Your task to perform on an android device: check the backup settings in the google photos Image 0: 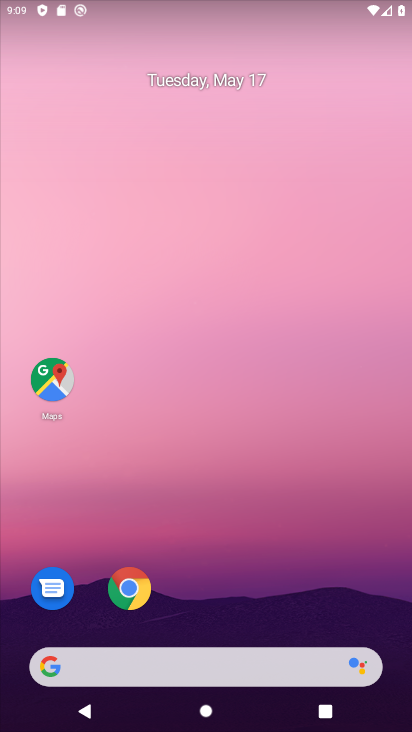
Step 0: drag from (220, 436) to (230, 231)
Your task to perform on an android device: check the backup settings in the google photos Image 1: 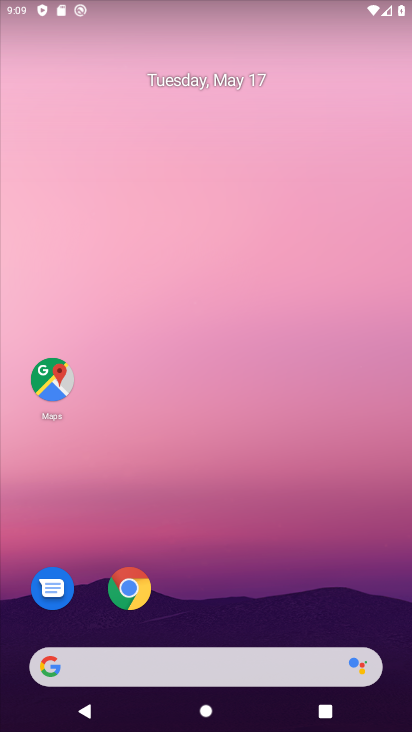
Step 1: drag from (180, 569) to (191, 302)
Your task to perform on an android device: check the backup settings in the google photos Image 2: 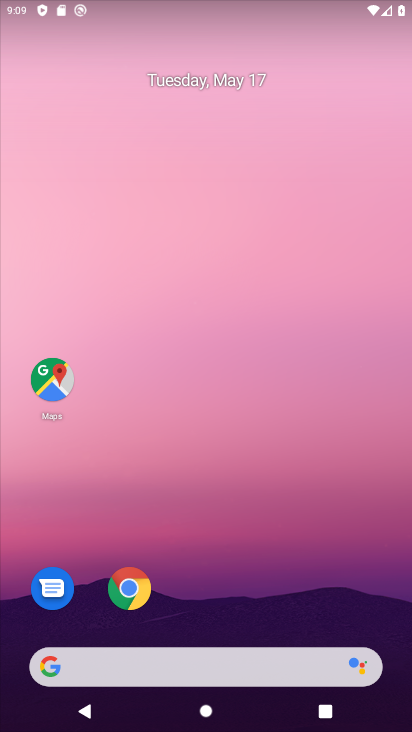
Step 2: drag from (164, 605) to (208, 232)
Your task to perform on an android device: check the backup settings in the google photos Image 3: 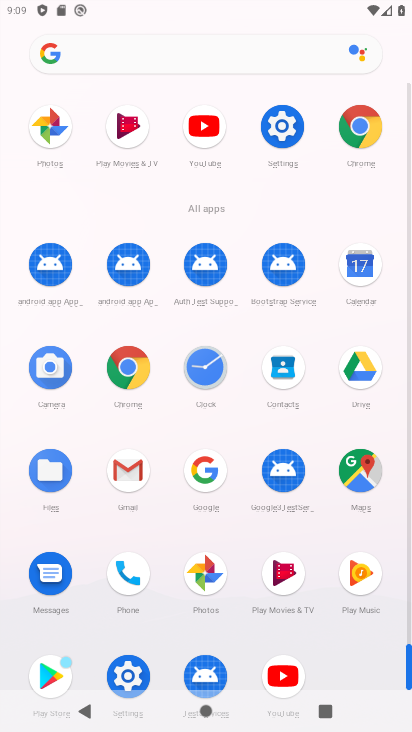
Step 3: click (210, 564)
Your task to perform on an android device: check the backup settings in the google photos Image 4: 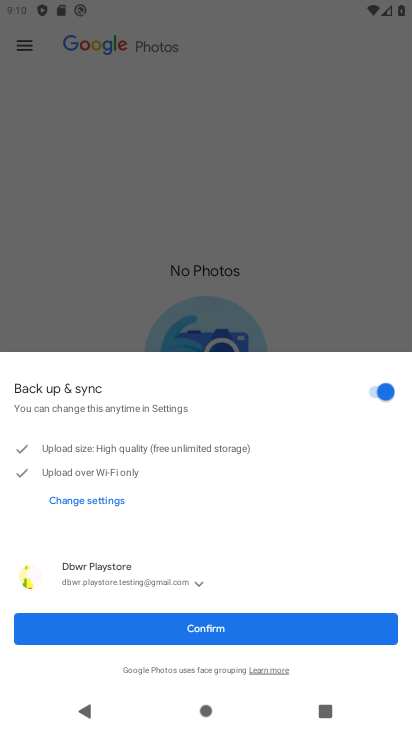
Step 4: click (266, 619)
Your task to perform on an android device: check the backup settings in the google photos Image 5: 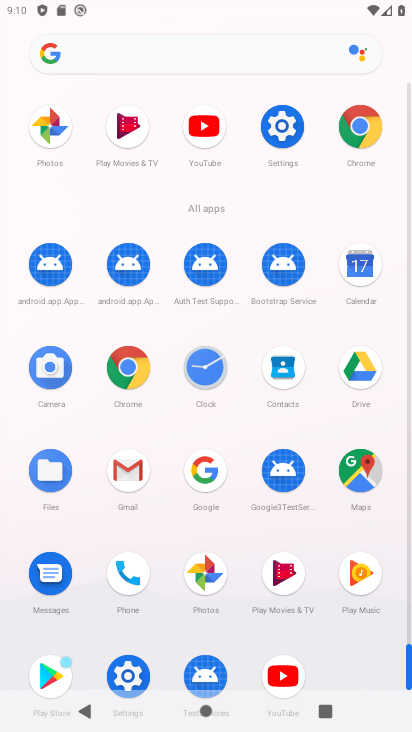
Step 5: click (204, 560)
Your task to perform on an android device: check the backup settings in the google photos Image 6: 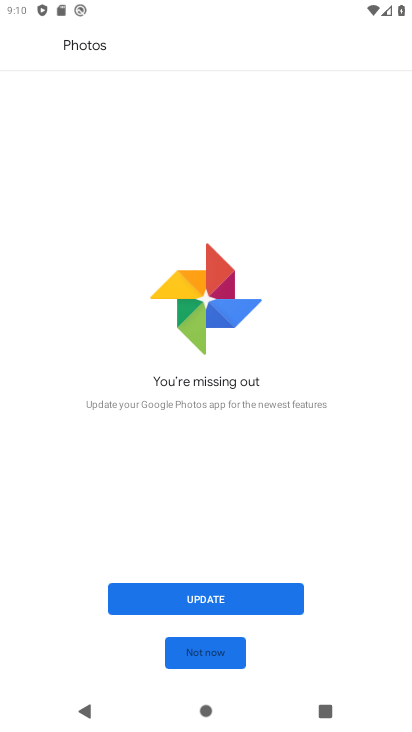
Step 6: click (236, 598)
Your task to perform on an android device: check the backup settings in the google photos Image 7: 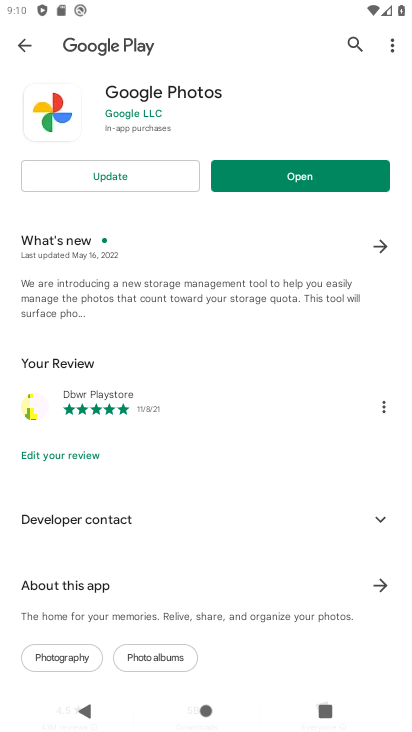
Step 7: press back button
Your task to perform on an android device: check the backup settings in the google photos Image 8: 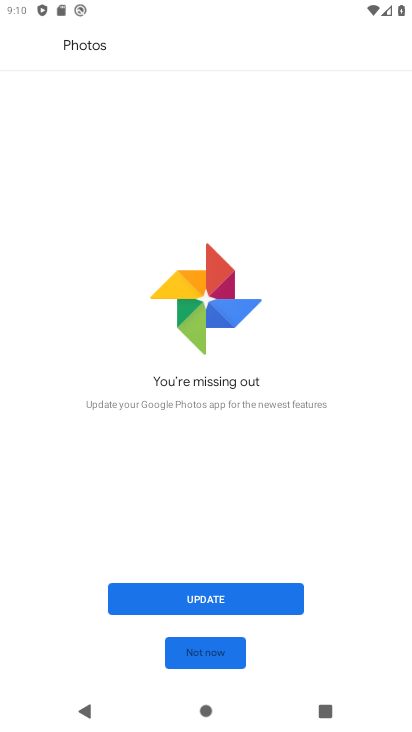
Step 8: click (194, 604)
Your task to perform on an android device: check the backup settings in the google photos Image 9: 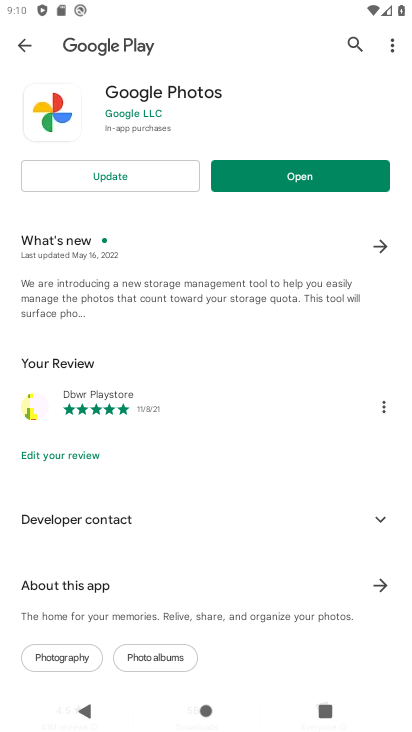
Step 9: press back button
Your task to perform on an android device: check the backup settings in the google photos Image 10: 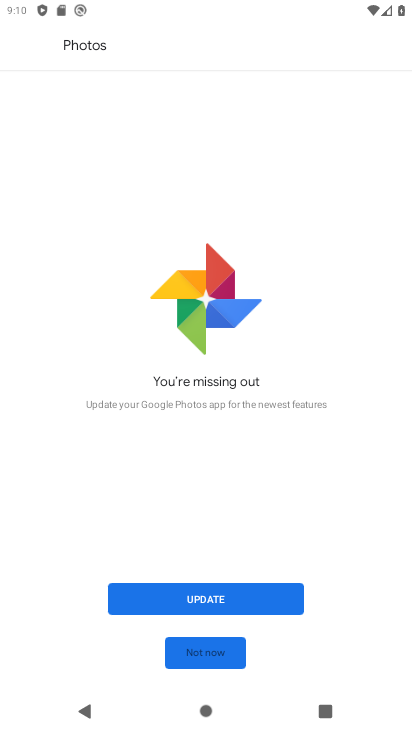
Step 10: click (234, 648)
Your task to perform on an android device: check the backup settings in the google photos Image 11: 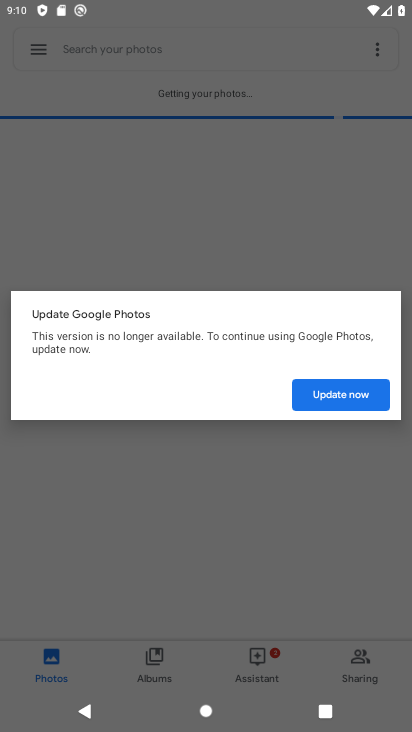
Step 11: click (321, 398)
Your task to perform on an android device: check the backup settings in the google photos Image 12: 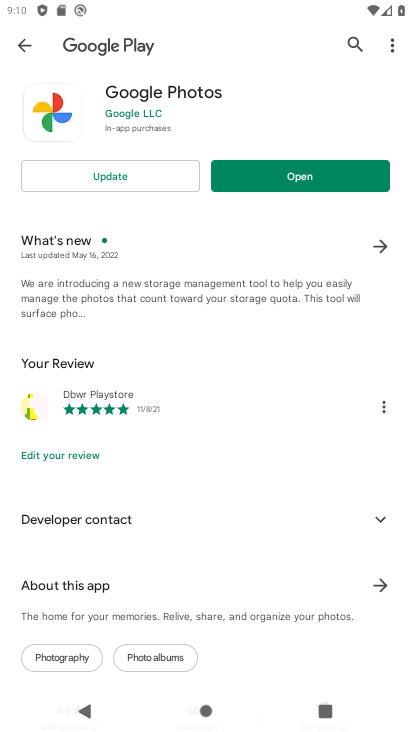
Step 12: press back button
Your task to perform on an android device: check the backup settings in the google photos Image 13: 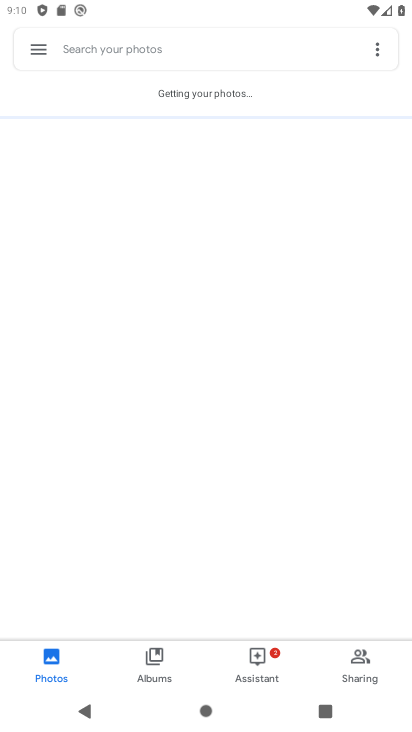
Step 13: click (38, 41)
Your task to perform on an android device: check the backup settings in the google photos Image 14: 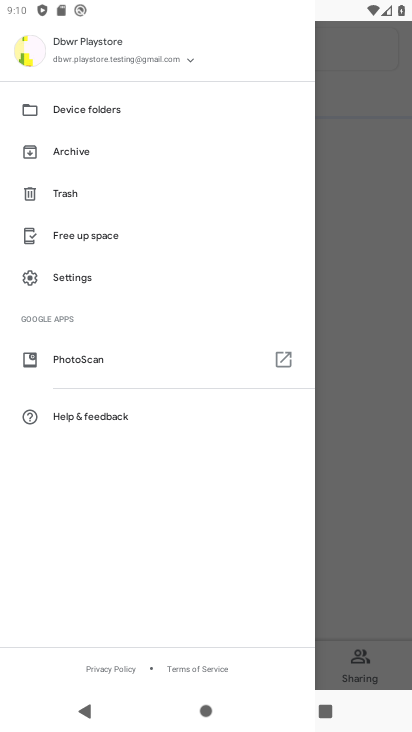
Step 14: click (65, 273)
Your task to perform on an android device: check the backup settings in the google photos Image 15: 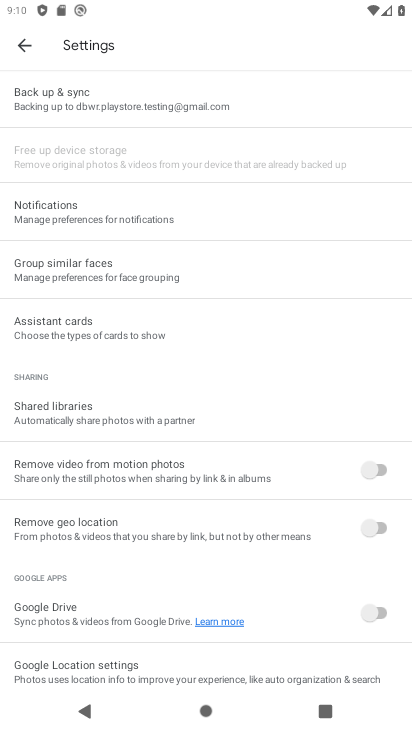
Step 15: click (133, 102)
Your task to perform on an android device: check the backup settings in the google photos Image 16: 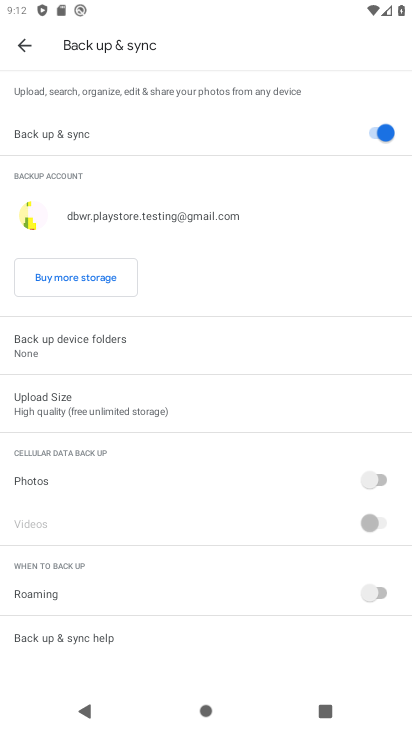
Step 16: task complete